Your task to perform on an android device: Open internet settings Image 0: 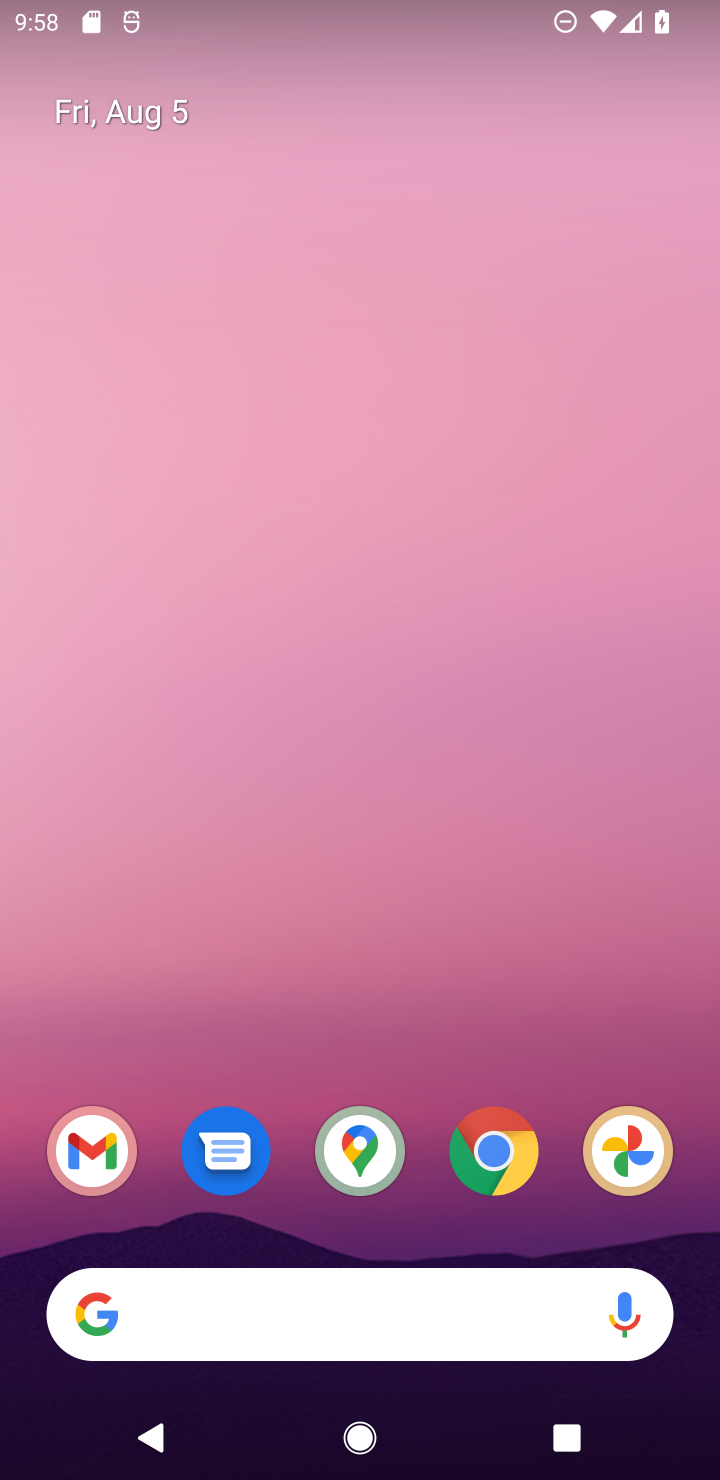
Step 0: drag from (279, 1111) to (370, 6)
Your task to perform on an android device: Open internet settings Image 1: 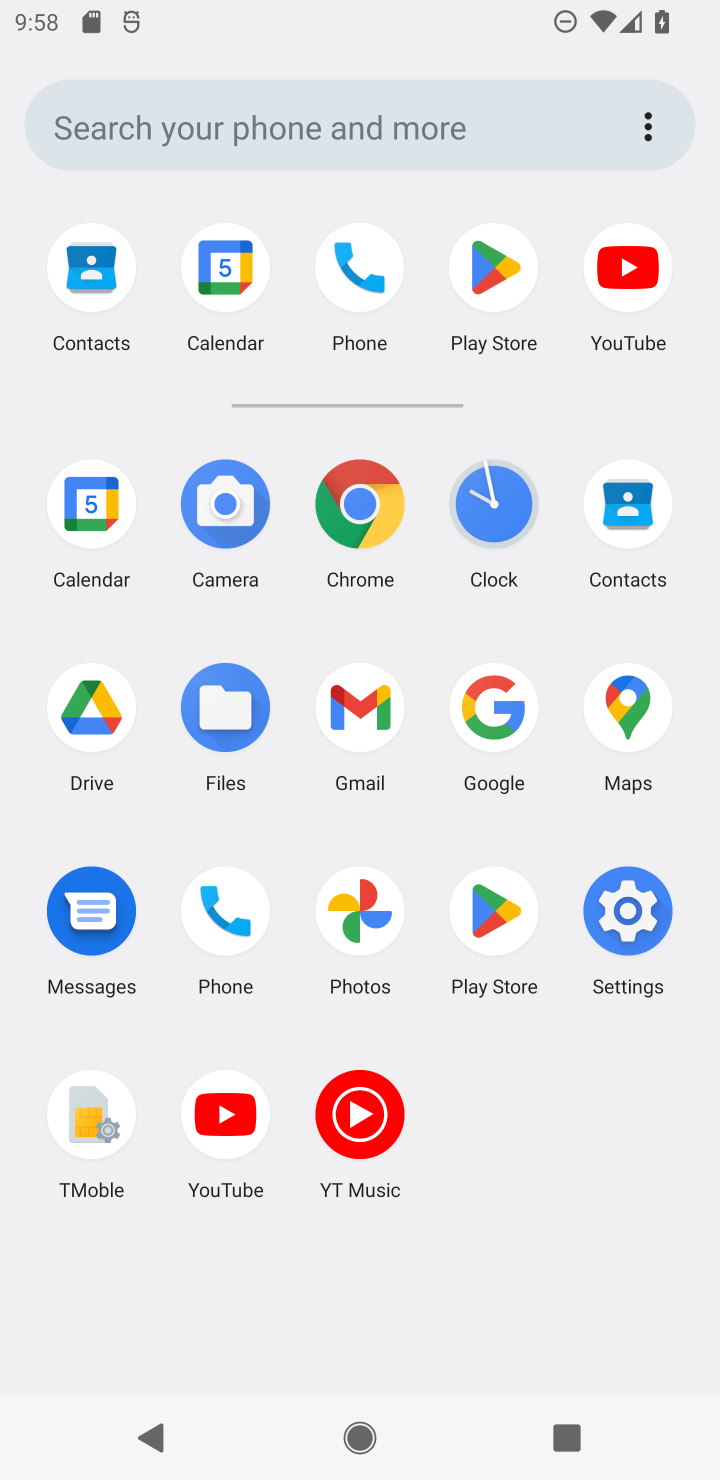
Step 1: click (636, 897)
Your task to perform on an android device: Open internet settings Image 2: 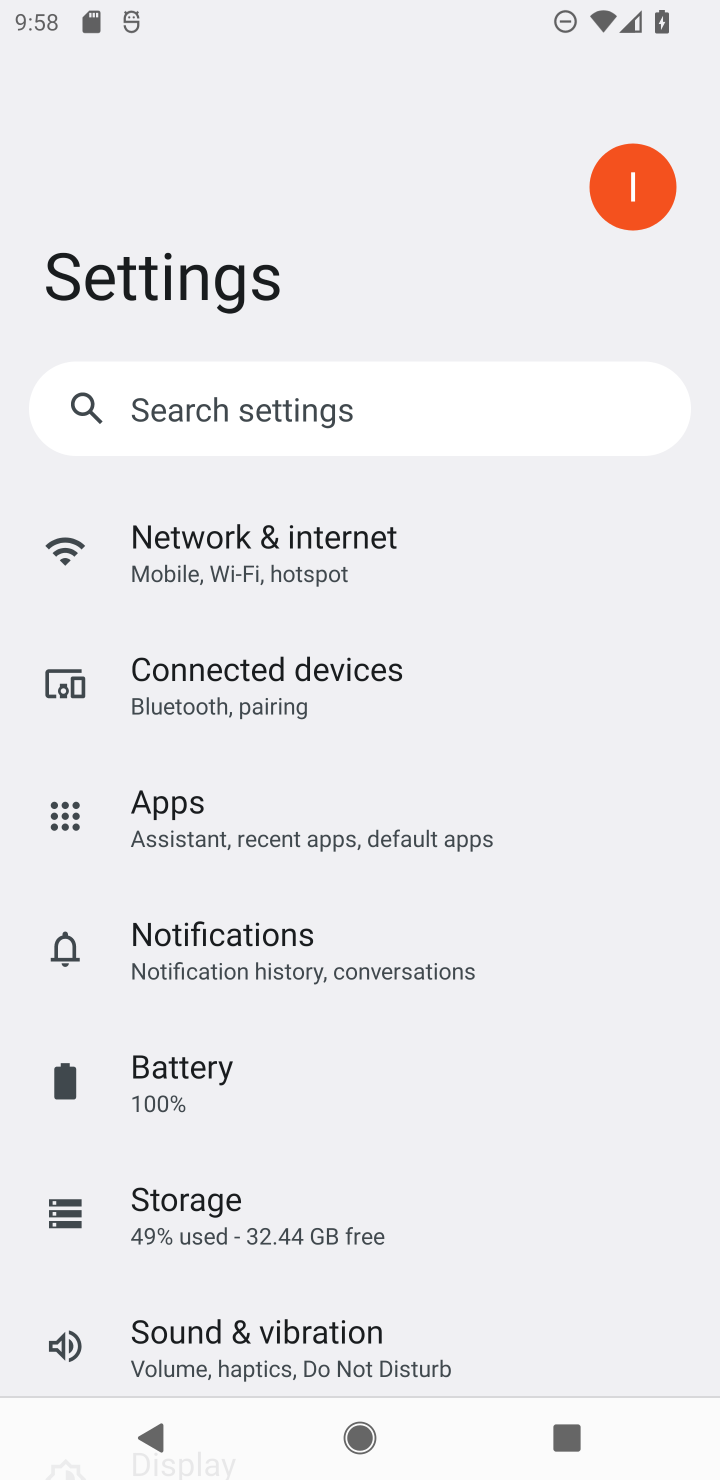
Step 2: click (304, 565)
Your task to perform on an android device: Open internet settings Image 3: 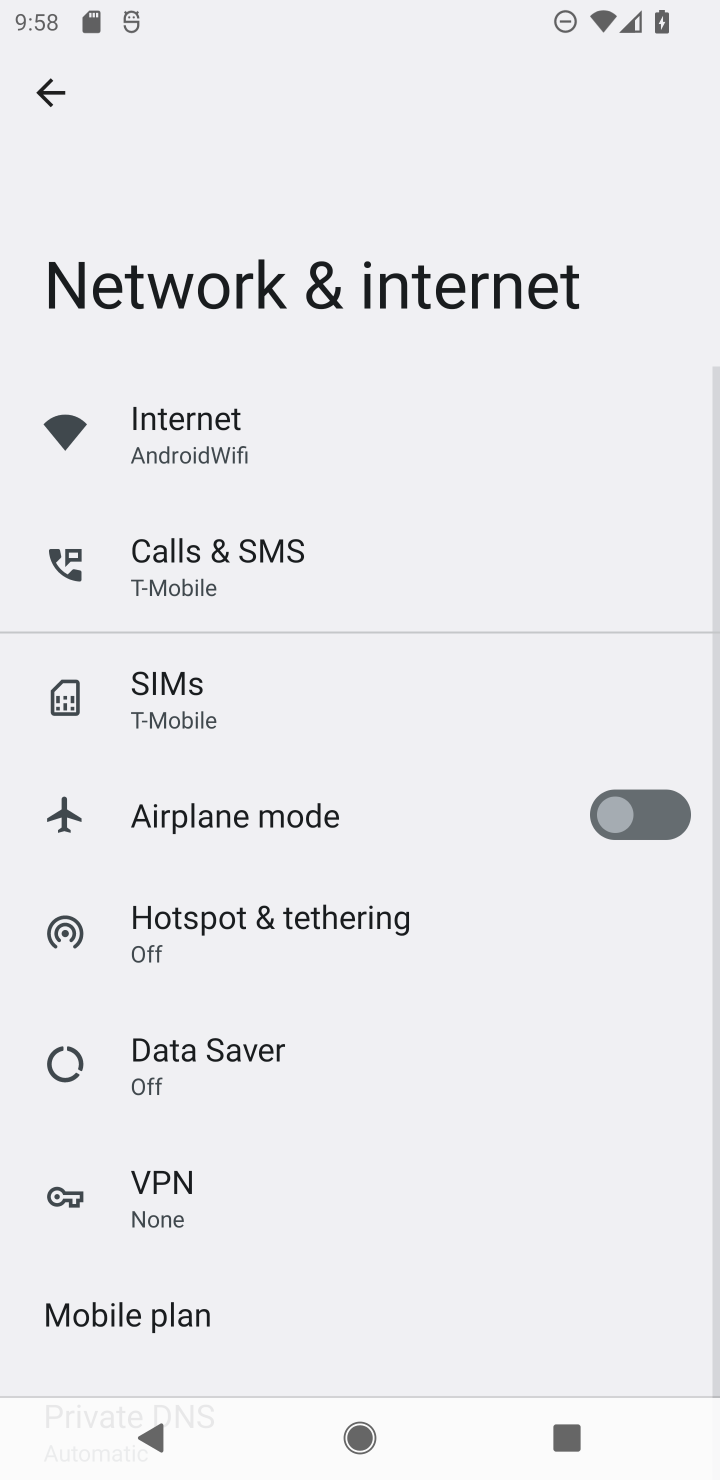
Step 3: task complete